Your task to perform on an android device: add a contact in the contacts app Image 0: 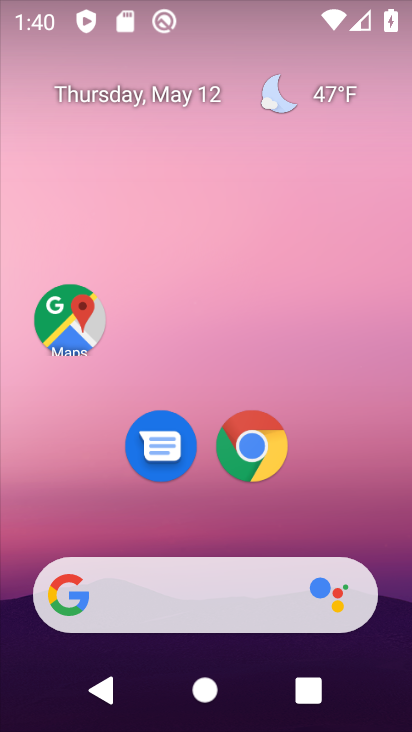
Step 0: drag from (202, 563) to (134, 49)
Your task to perform on an android device: add a contact in the contacts app Image 1: 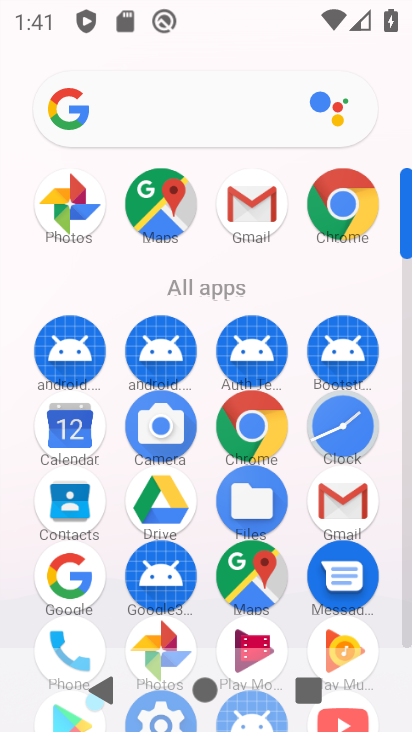
Step 1: click (83, 652)
Your task to perform on an android device: add a contact in the contacts app Image 2: 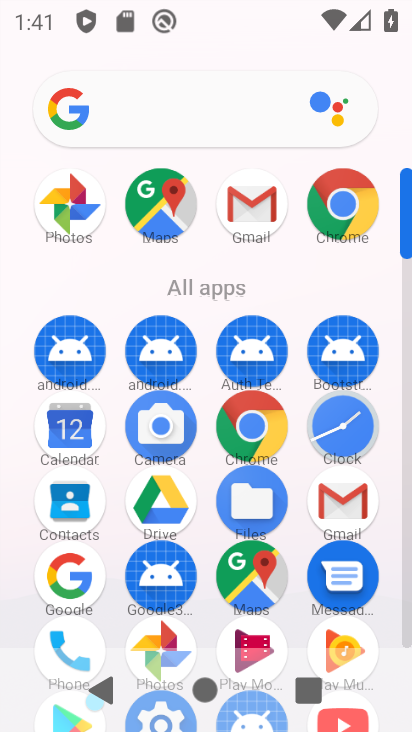
Step 2: click (75, 634)
Your task to perform on an android device: add a contact in the contacts app Image 3: 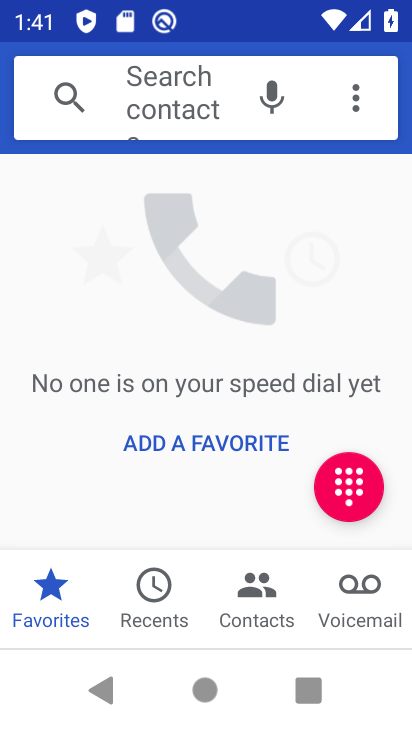
Step 3: click (243, 601)
Your task to perform on an android device: add a contact in the contacts app Image 4: 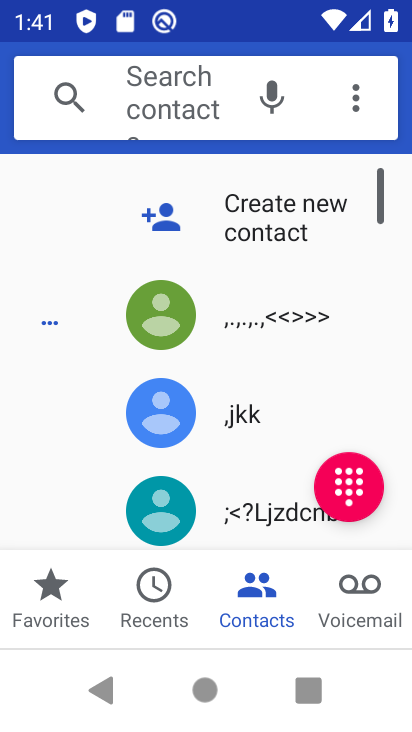
Step 4: click (233, 213)
Your task to perform on an android device: add a contact in the contacts app Image 5: 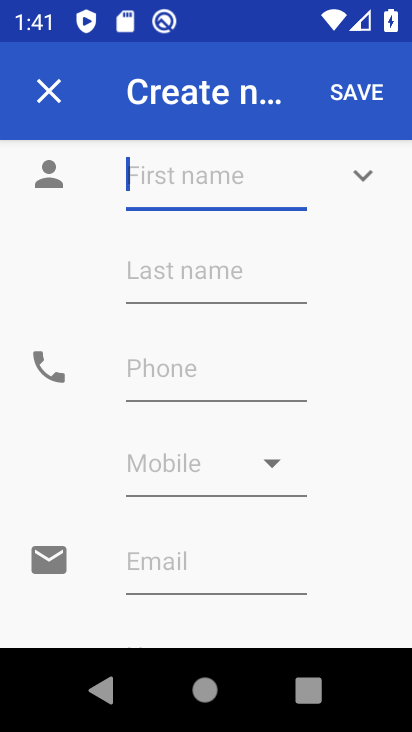
Step 5: type "opo"
Your task to perform on an android device: add a contact in the contacts app Image 6: 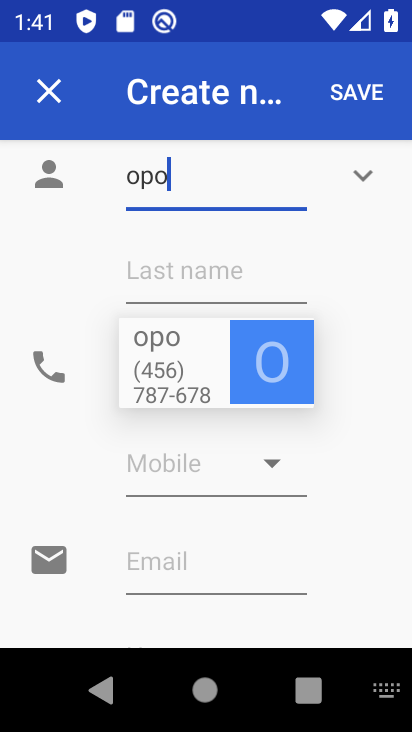
Step 6: click (203, 372)
Your task to perform on an android device: add a contact in the contacts app Image 7: 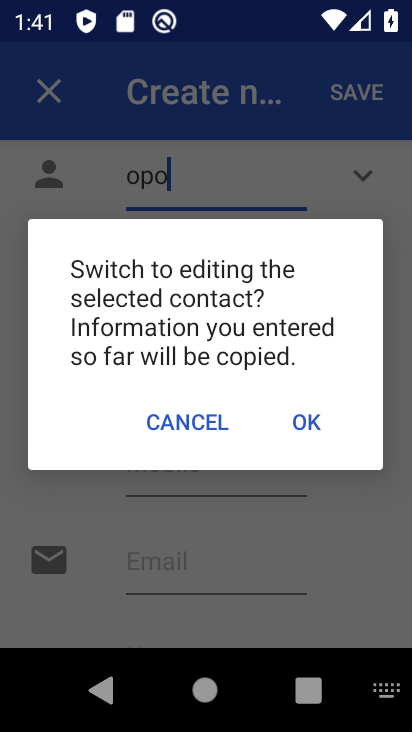
Step 7: click (299, 420)
Your task to perform on an android device: add a contact in the contacts app Image 8: 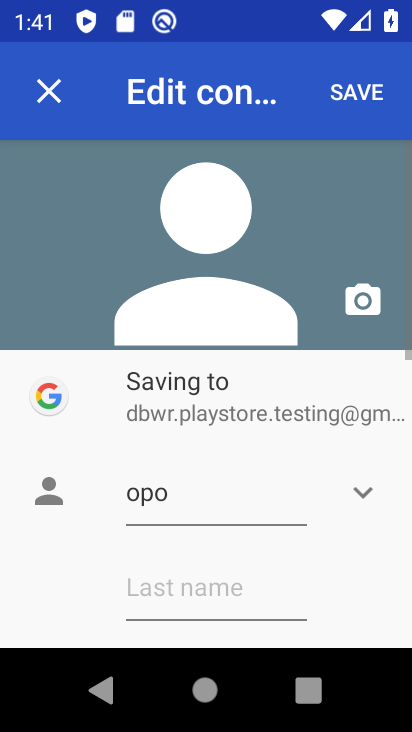
Step 8: click (346, 91)
Your task to perform on an android device: add a contact in the contacts app Image 9: 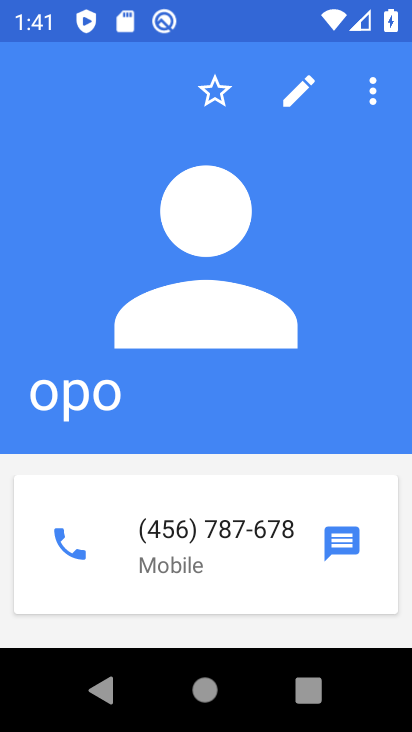
Step 9: task complete